Your task to perform on an android device: Go to battery settings Image 0: 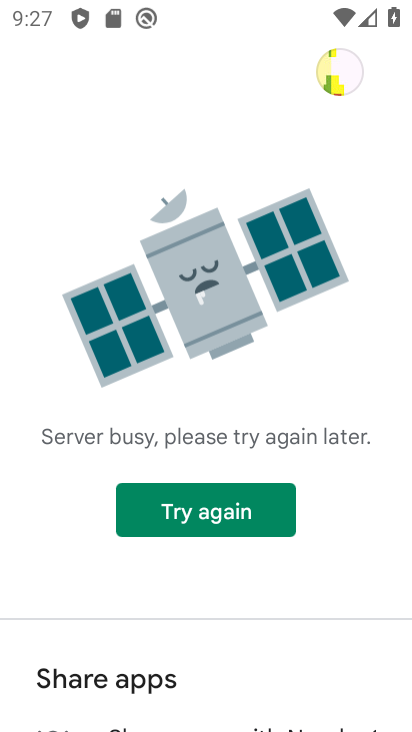
Step 0: press home button
Your task to perform on an android device: Go to battery settings Image 1: 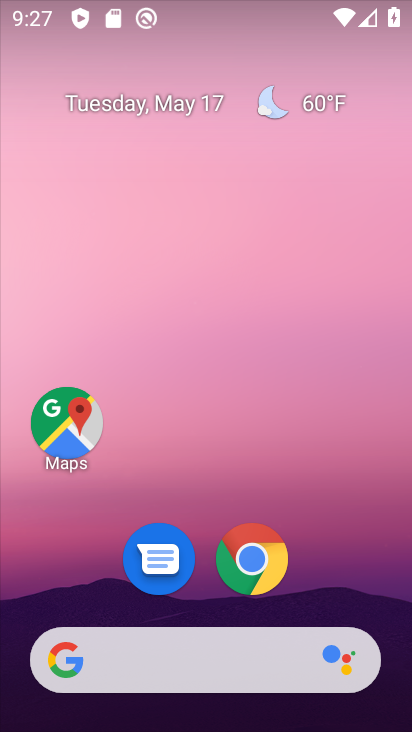
Step 1: drag from (338, 646) to (350, 132)
Your task to perform on an android device: Go to battery settings Image 2: 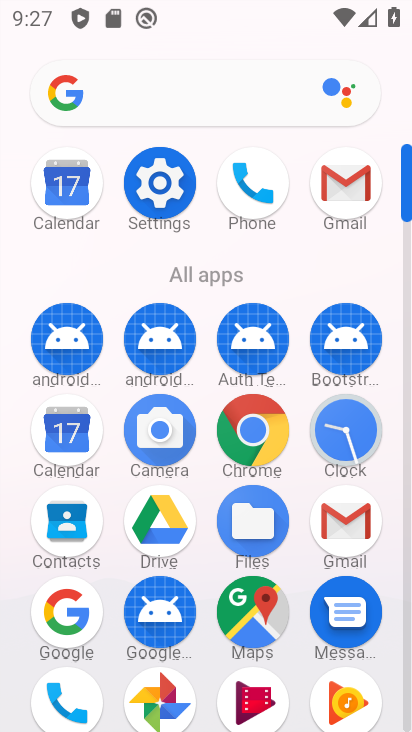
Step 2: click (154, 193)
Your task to perform on an android device: Go to battery settings Image 3: 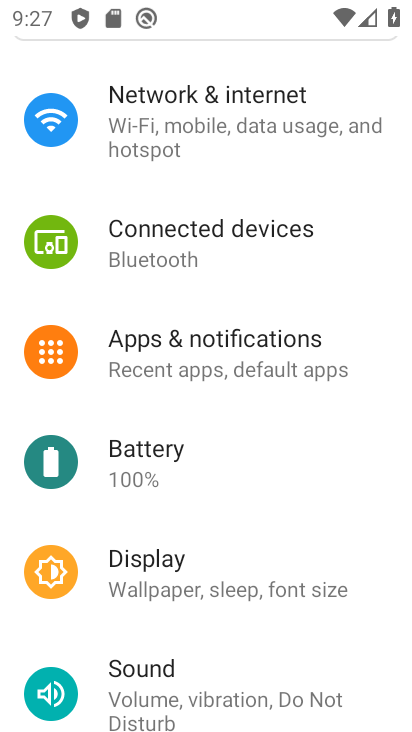
Step 3: click (161, 477)
Your task to perform on an android device: Go to battery settings Image 4: 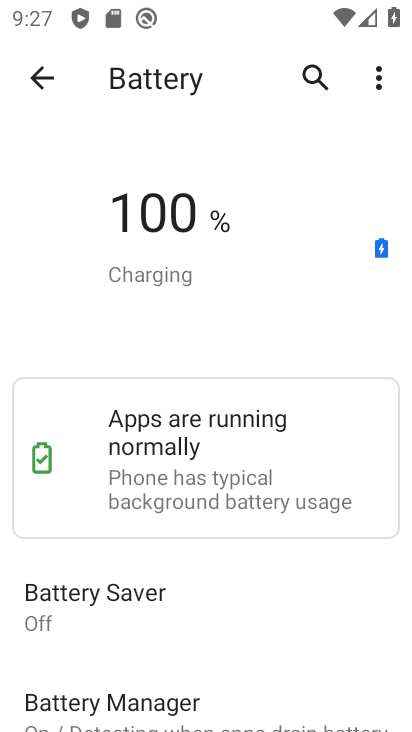
Step 4: task complete